Your task to perform on an android device: Search for Mexican restaurants on Maps Image 0: 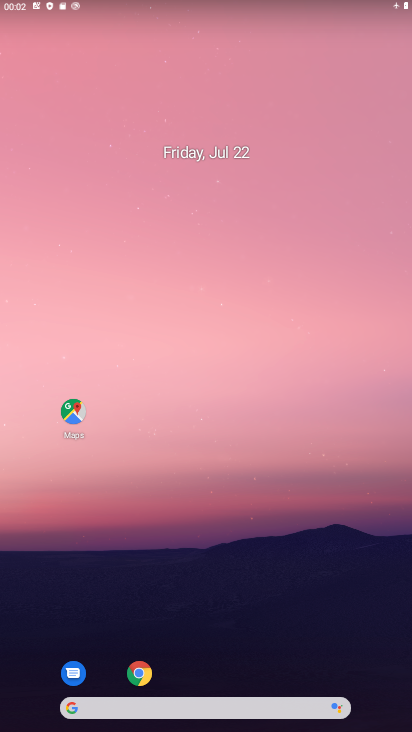
Step 0: click (84, 430)
Your task to perform on an android device: Search for Mexican restaurants on Maps Image 1: 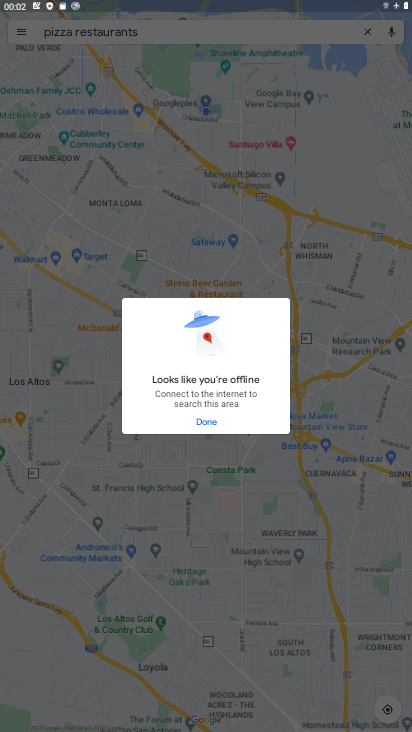
Step 1: press back button
Your task to perform on an android device: Search for Mexican restaurants on Maps Image 2: 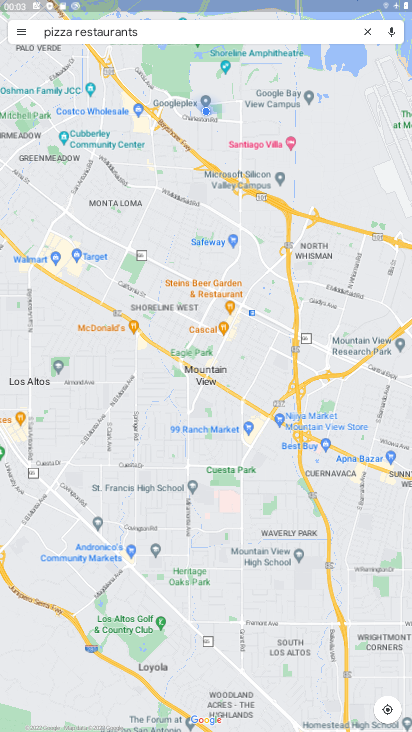
Step 2: click (163, 34)
Your task to perform on an android device: Search for Mexican restaurants on Maps Image 3: 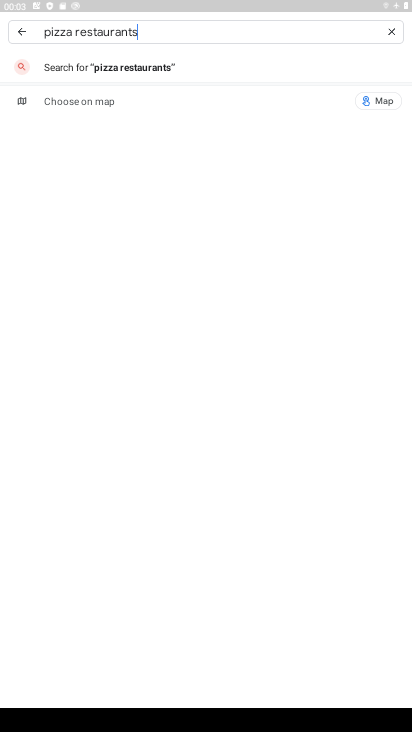
Step 3: click (390, 30)
Your task to perform on an android device: Search for Mexican restaurants on Maps Image 4: 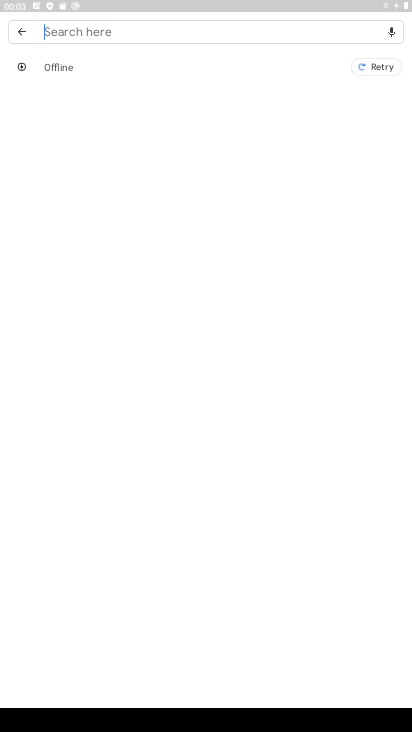
Step 4: type "Mexican restaurants"
Your task to perform on an android device: Search for Mexican restaurants on Maps Image 5: 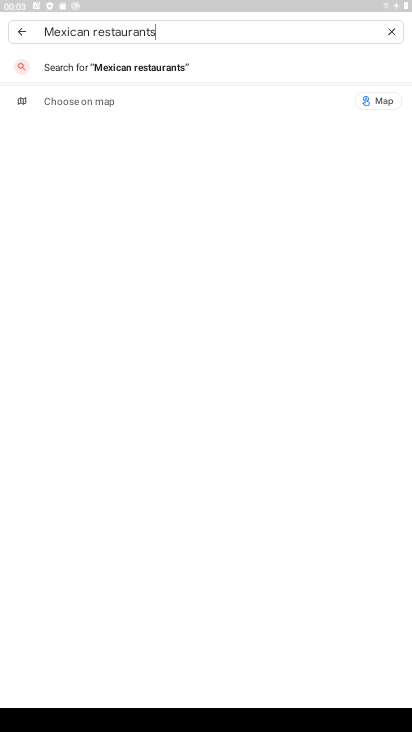
Step 5: type ""
Your task to perform on an android device: Search for Mexican restaurants on Maps Image 6: 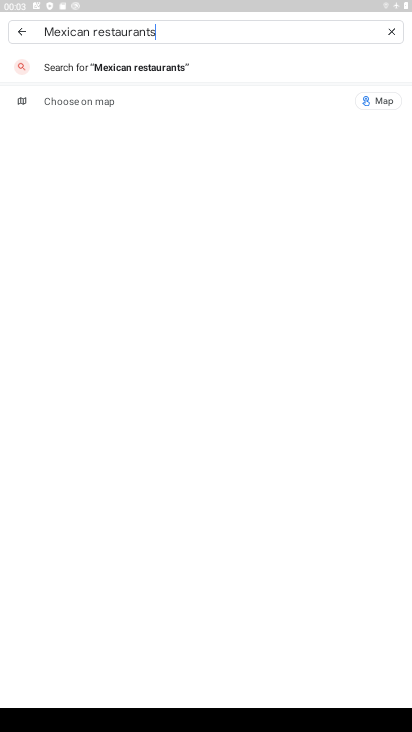
Step 6: click (186, 35)
Your task to perform on an android device: Search for Mexican restaurants on Maps Image 7: 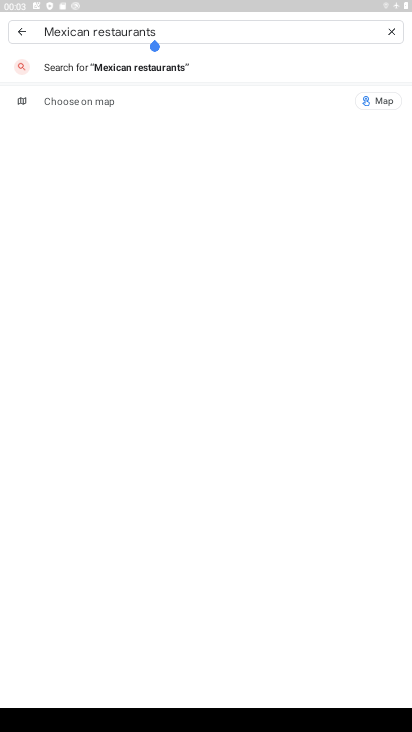
Step 7: click (150, 70)
Your task to perform on an android device: Search for Mexican restaurants on Maps Image 8: 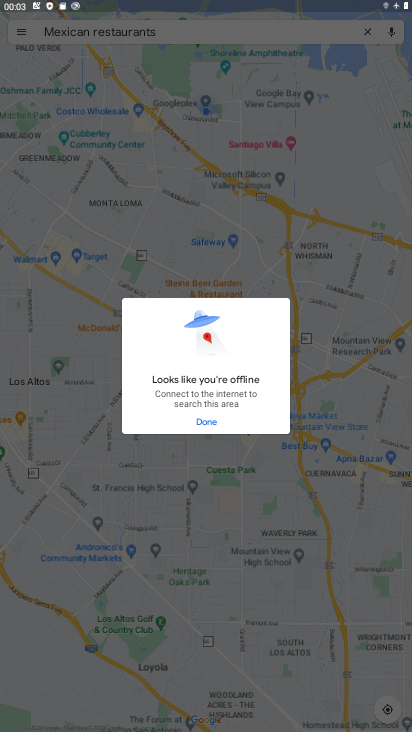
Step 8: task complete